Your task to perform on an android device: Add macbook pro 13 inch to the cart on target.com, then select checkout. Image 0: 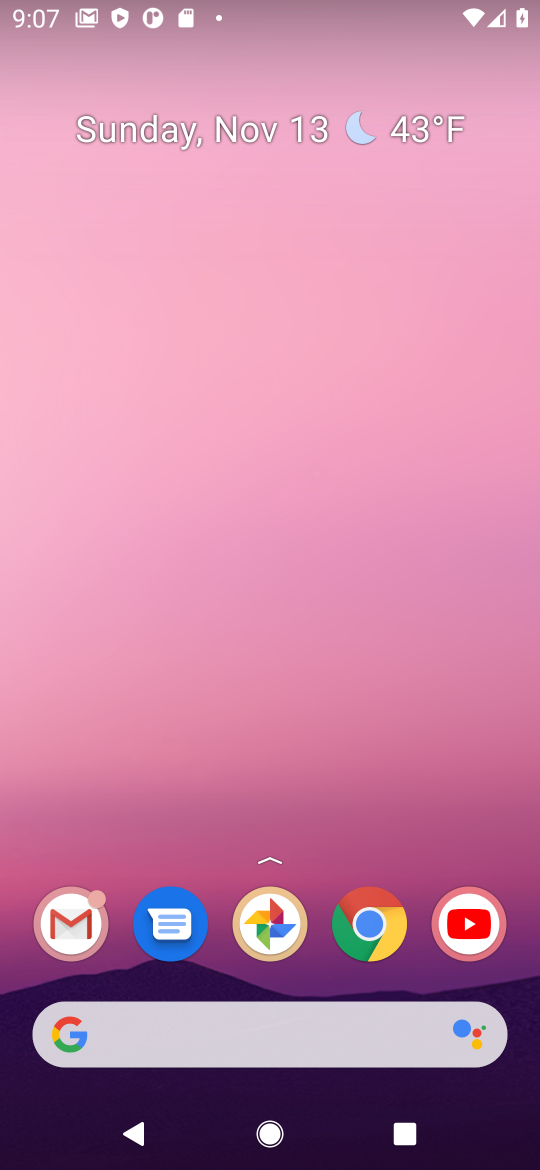
Step 0: click (373, 925)
Your task to perform on an android device: Add macbook pro 13 inch to the cart on target.com, then select checkout. Image 1: 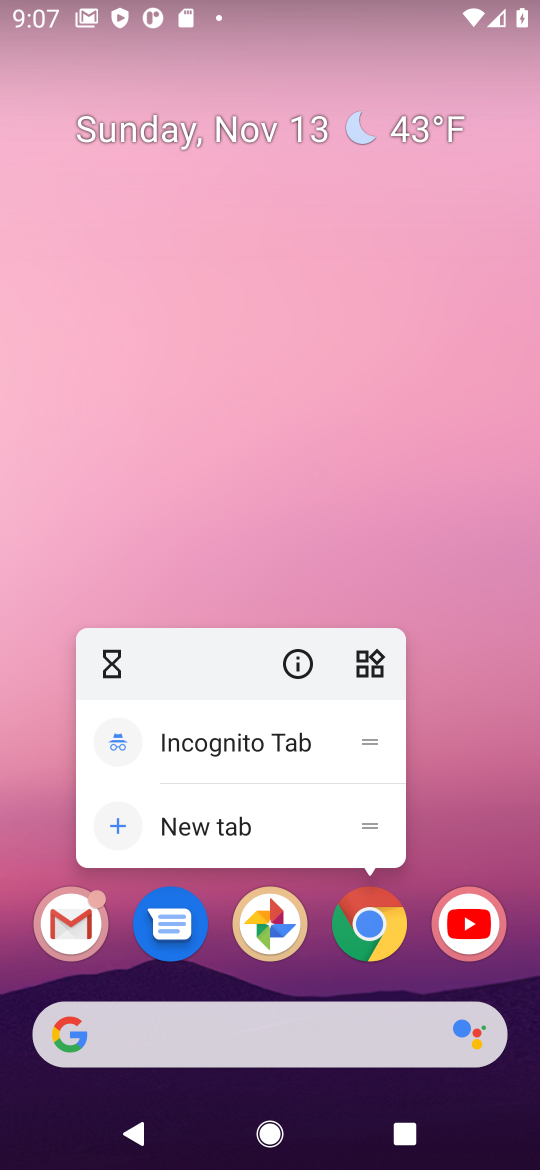
Step 1: click (373, 924)
Your task to perform on an android device: Add macbook pro 13 inch to the cart on target.com, then select checkout. Image 2: 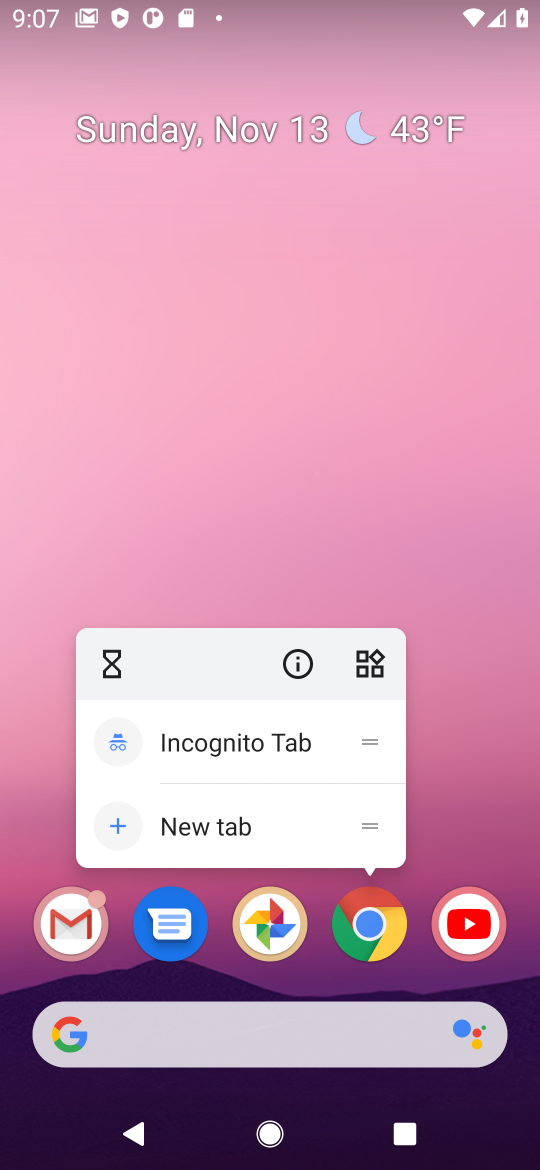
Step 2: click (373, 926)
Your task to perform on an android device: Add macbook pro 13 inch to the cart on target.com, then select checkout. Image 3: 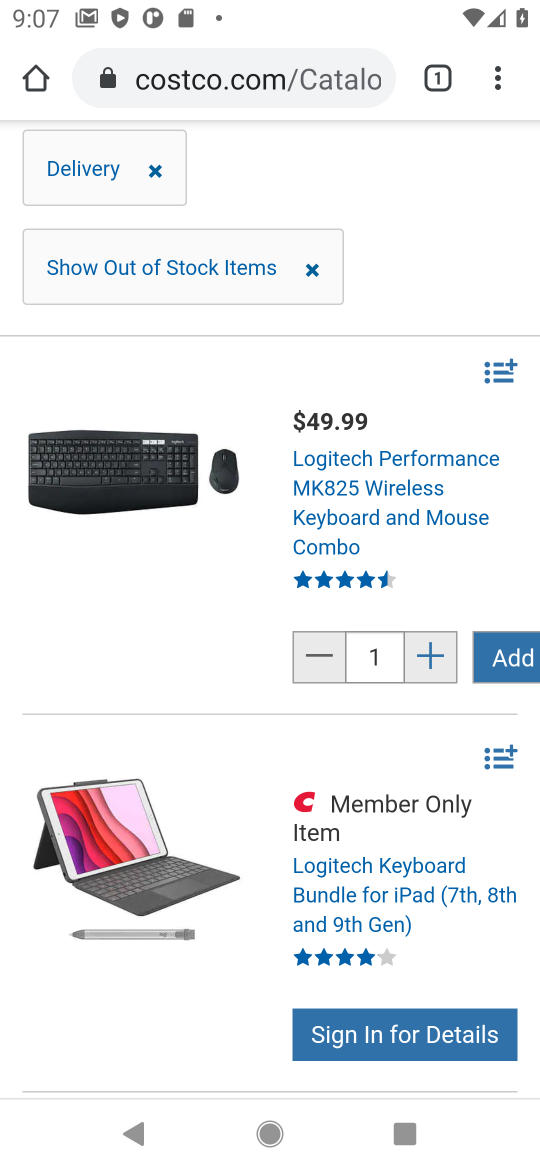
Step 3: click (320, 67)
Your task to perform on an android device: Add macbook pro 13 inch to the cart on target.com, then select checkout. Image 4: 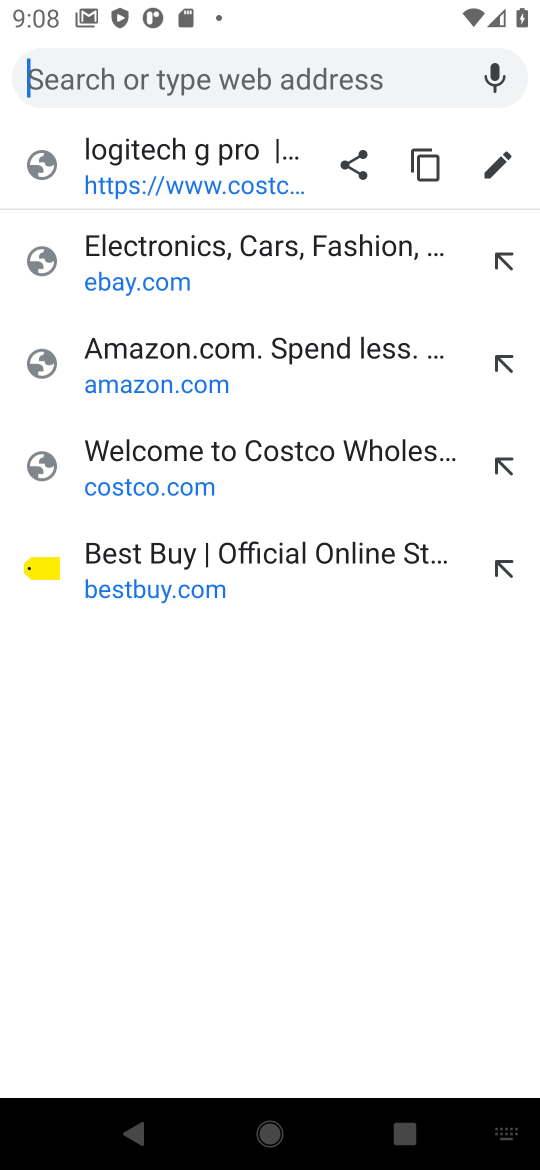
Step 4: type "target.com"
Your task to perform on an android device: Add macbook pro 13 inch to the cart on target.com, then select checkout. Image 5: 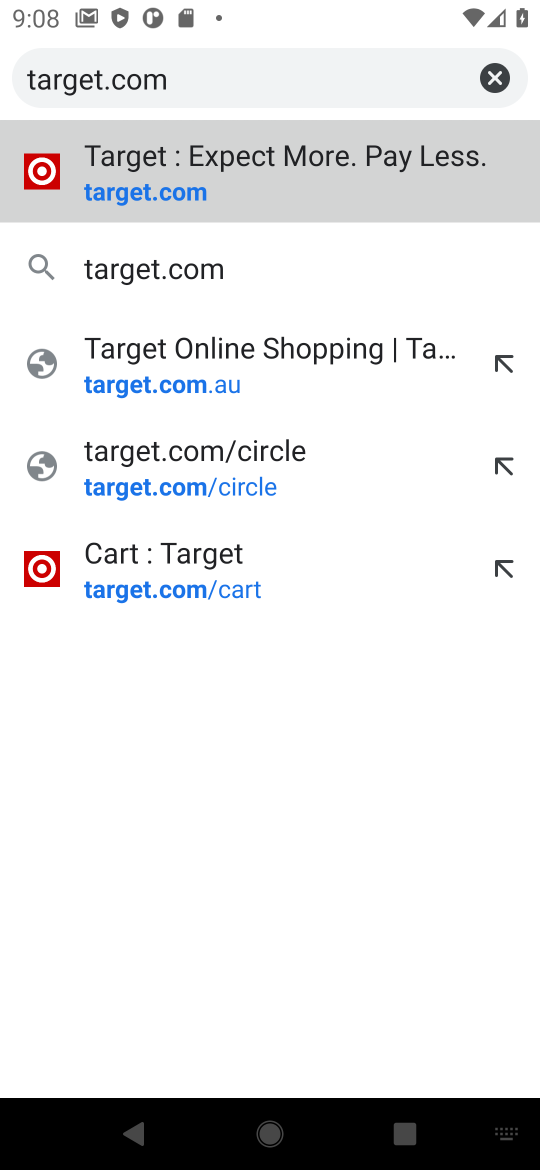
Step 5: press enter
Your task to perform on an android device: Add macbook pro 13 inch to the cart on target.com, then select checkout. Image 6: 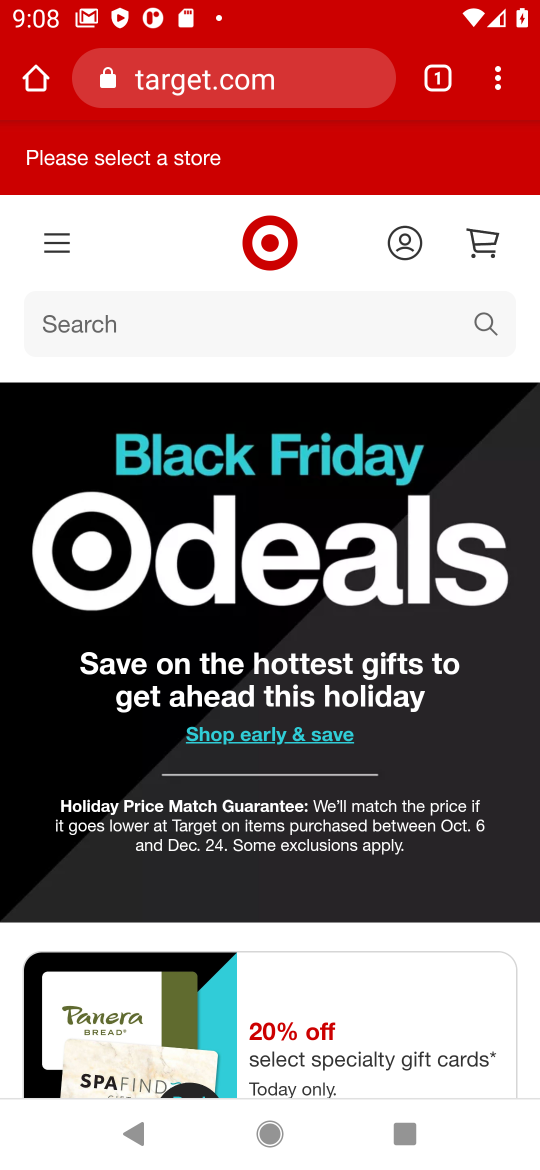
Step 6: click (170, 327)
Your task to perform on an android device: Add macbook pro 13 inch to the cart on target.com, then select checkout. Image 7: 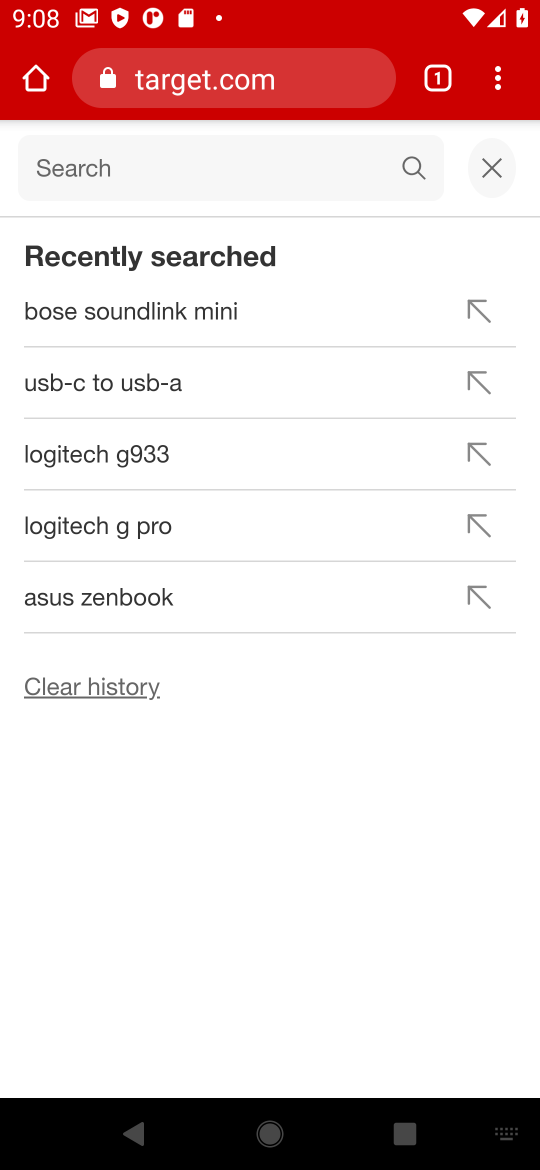
Step 7: type "macbook pro 13 inch"
Your task to perform on an android device: Add macbook pro 13 inch to the cart on target.com, then select checkout. Image 8: 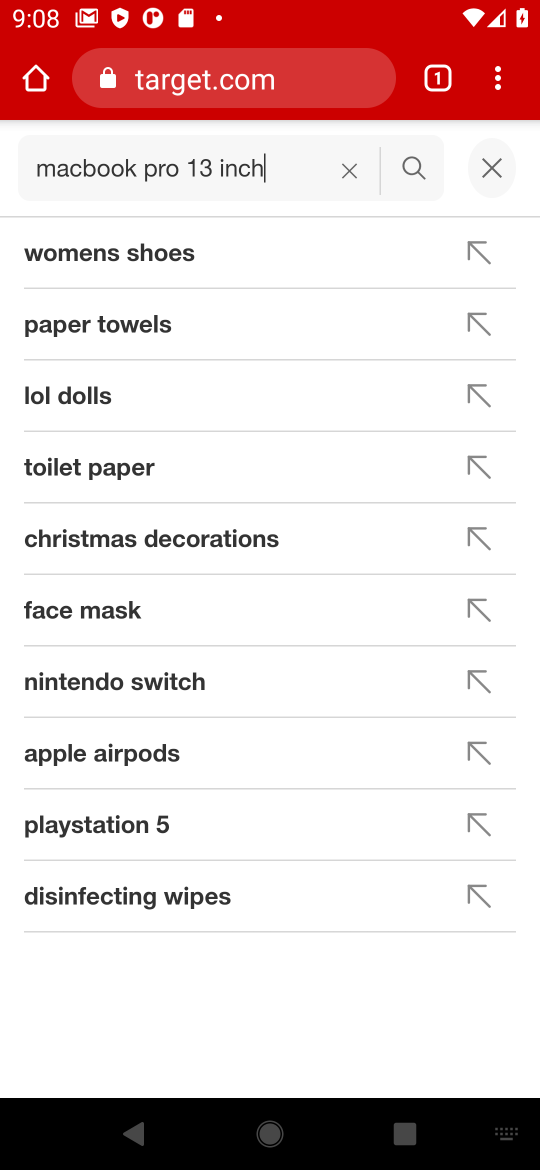
Step 8: press enter
Your task to perform on an android device: Add macbook pro 13 inch to the cart on target.com, then select checkout. Image 9: 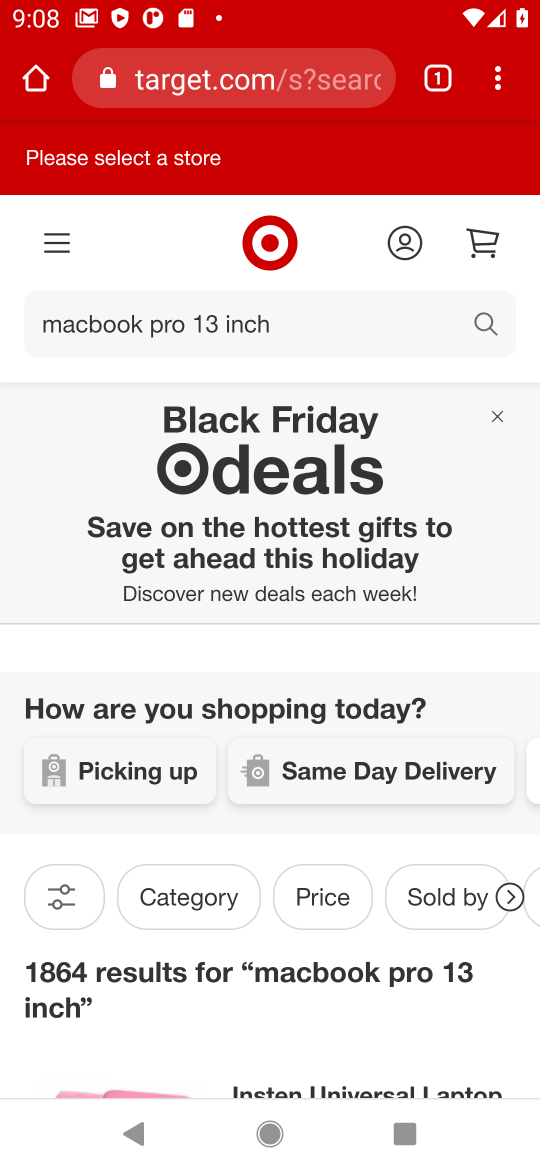
Step 9: task complete